Your task to perform on an android device: Open the map Image 0: 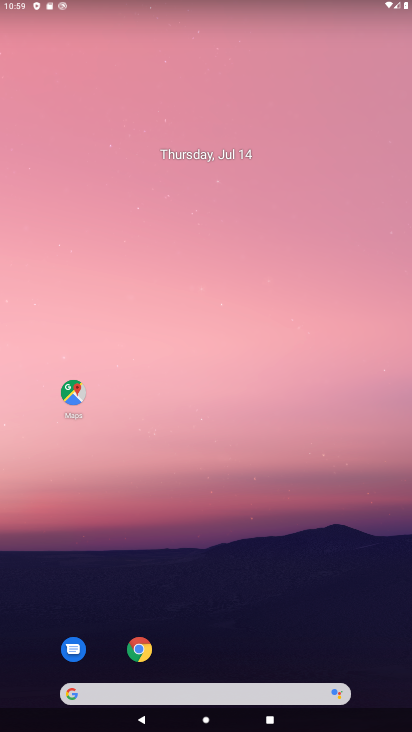
Step 0: click (80, 394)
Your task to perform on an android device: Open the map Image 1: 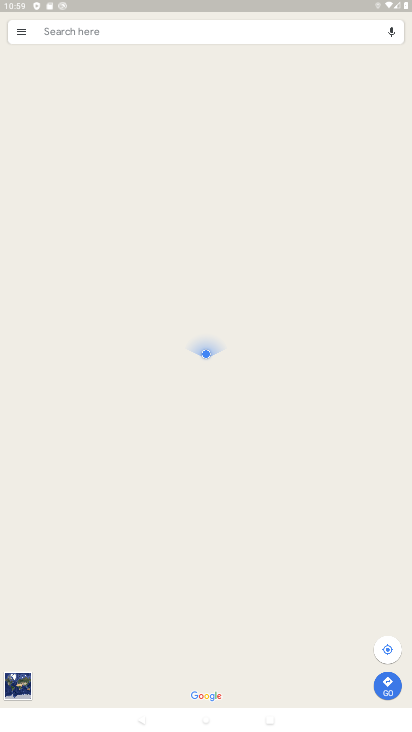
Step 1: task complete